Your task to perform on an android device: What's the weather going to be this weekend? Image 0: 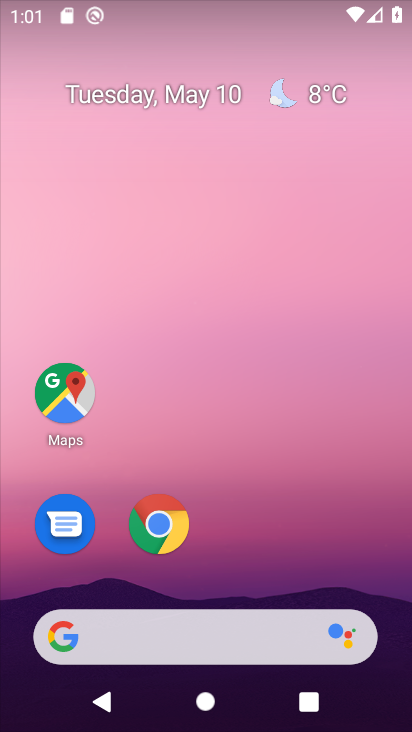
Step 0: click (303, 88)
Your task to perform on an android device: What's the weather going to be this weekend? Image 1: 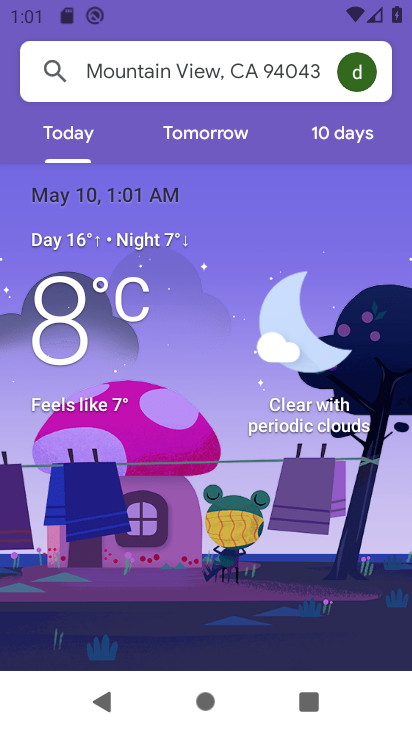
Step 1: click (340, 134)
Your task to perform on an android device: What's the weather going to be this weekend? Image 2: 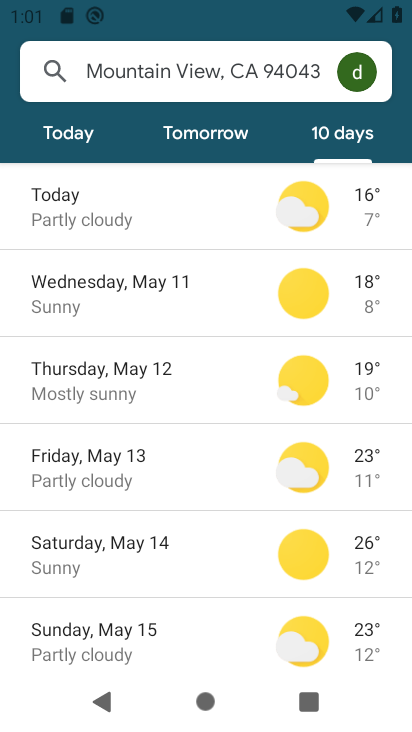
Step 2: click (106, 548)
Your task to perform on an android device: What's the weather going to be this weekend? Image 3: 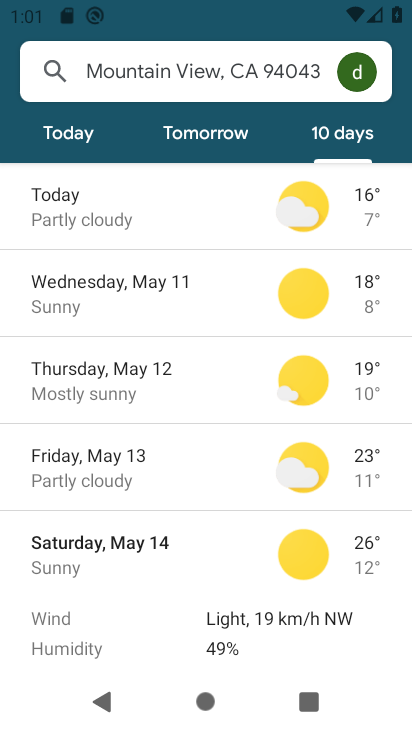
Step 3: task complete